Your task to perform on an android device: open wifi settings Image 0: 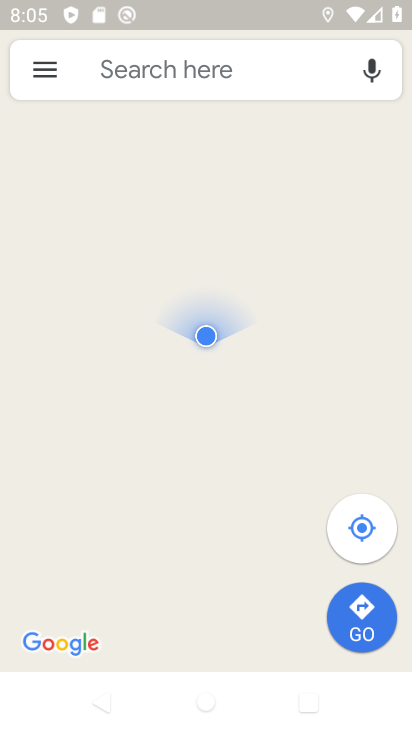
Step 0: press home button
Your task to perform on an android device: open wifi settings Image 1: 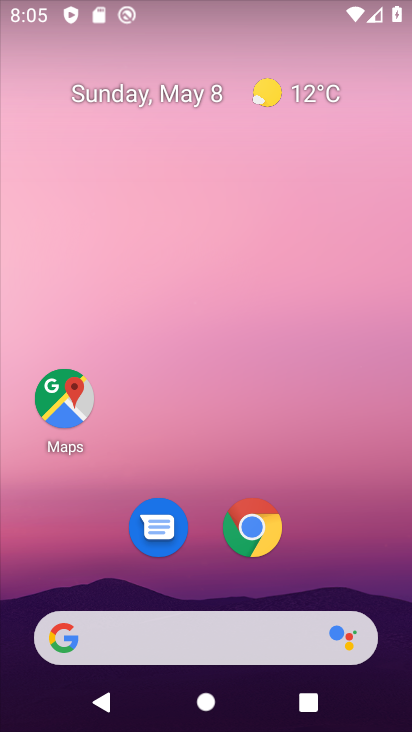
Step 1: drag from (288, 568) to (293, 148)
Your task to perform on an android device: open wifi settings Image 2: 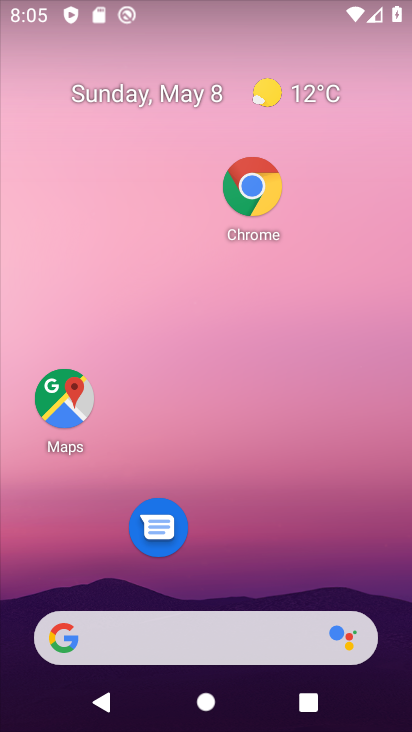
Step 2: drag from (268, 597) to (244, 307)
Your task to perform on an android device: open wifi settings Image 3: 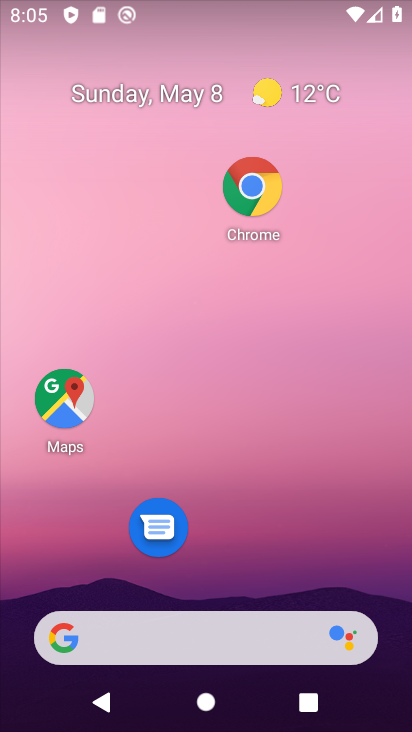
Step 3: drag from (233, 432) to (232, 238)
Your task to perform on an android device: open wifi settings Image 4: 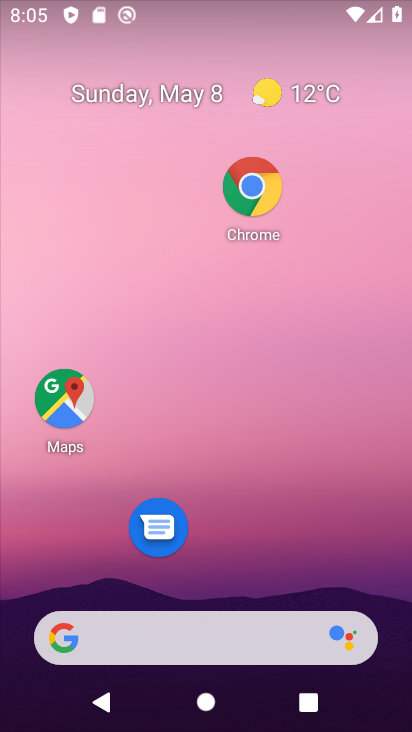
Step 4: drag from (263, 447) to (260, 156)
Your task to perform on an android device: open wifi settings Image 5: 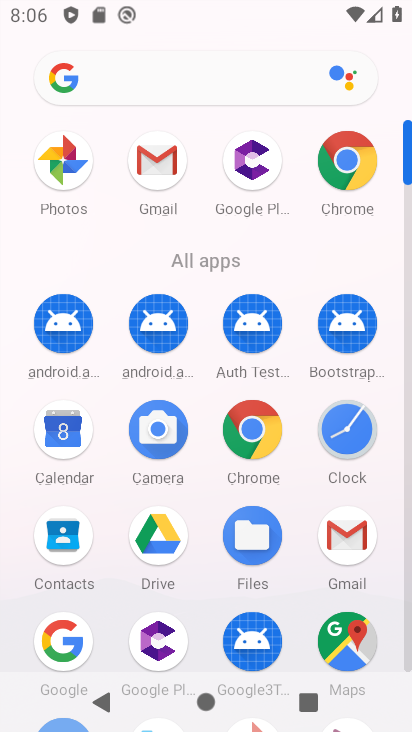
Step 5: drag from (186, 602) to (310, 86)
Your task to perform on an android device: open wifi settings Image 6: 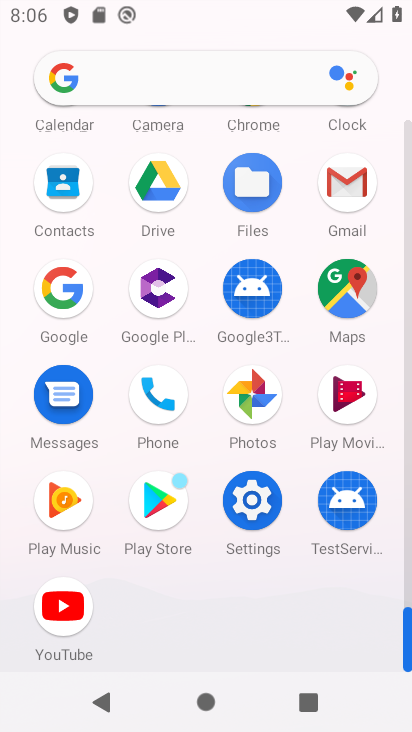
Step 6: click (247, 514)
Your task to perform on an android device: open wifi settings Image 7: 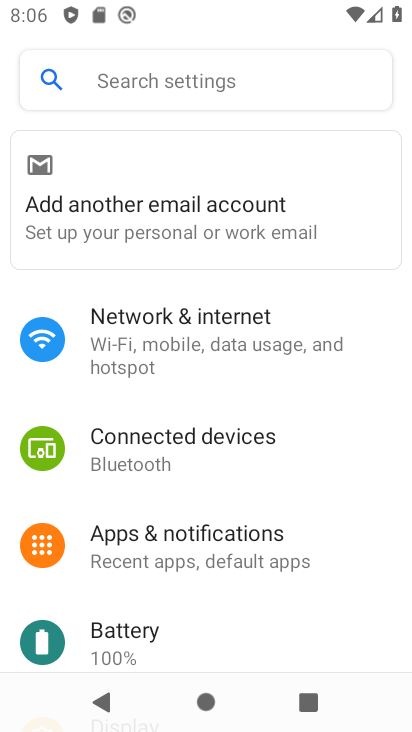
Step 7: click (196, 329)
Your task to perform on an android device: open wifi settings Image 8: 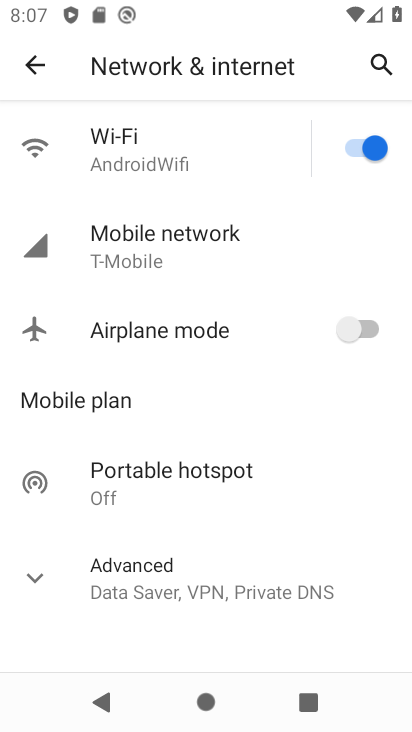
Step 8: click (208, 143)
Your task to perform on an android device: open wifi settings Image 9: 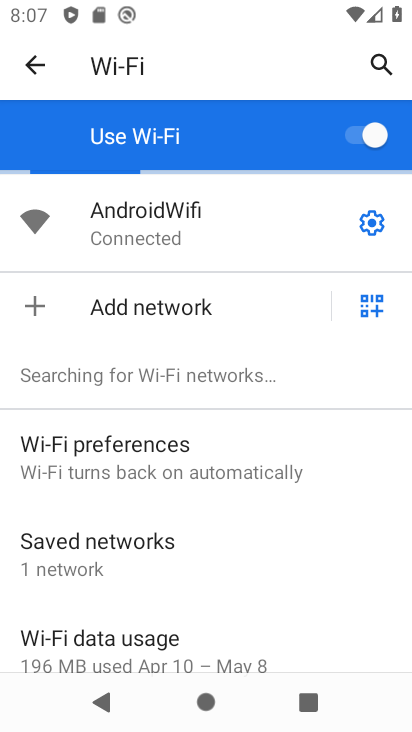
Step 9: press back button
Your task to perform on an android device: open wifi settings Image 10: 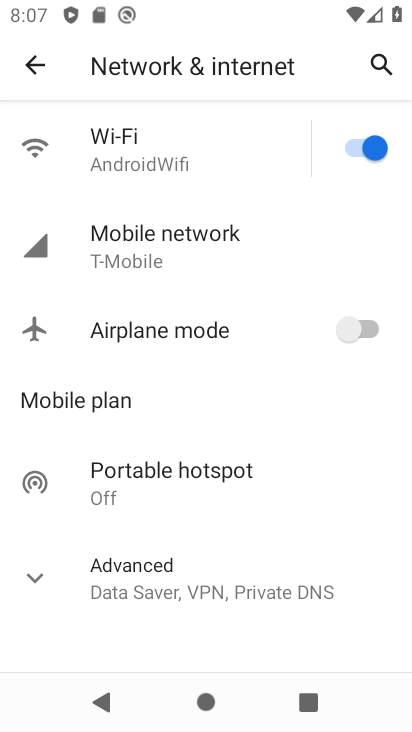
Step 10: click (194, 144)
Your task to perform on an android device: open wifi settings Image 11: 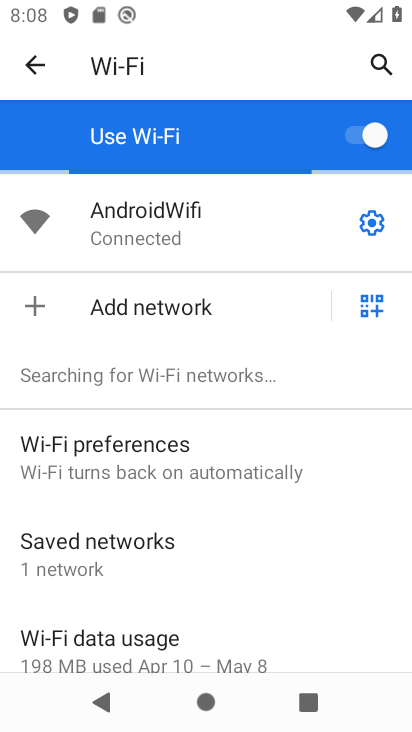
Step 11: task complete